Your task to perform on an android device: Go to internet settings Image 0: 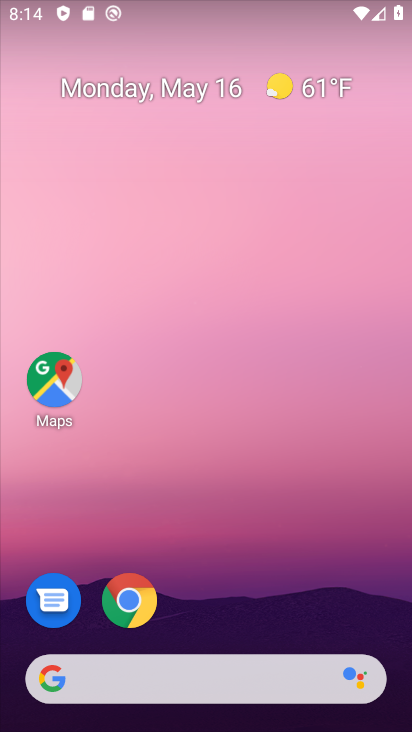
Step 0: drag from (260, 631) to (263, 29)
Your task to perform on an android device: Go to internet settings Image 1: 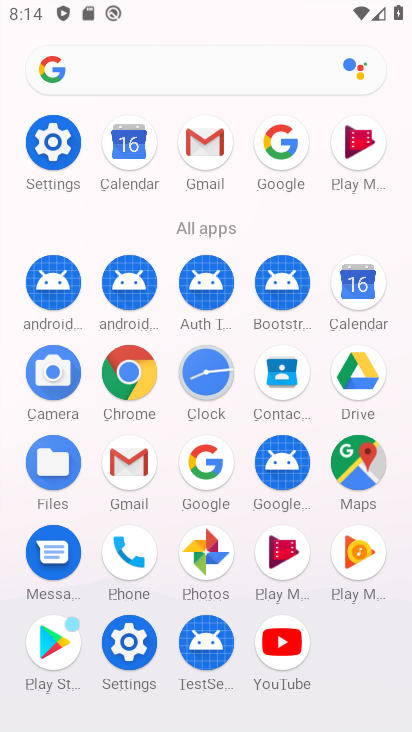
Step 1: click (115, 635)
Your task to perform on an android device: Go to internet settings Image 2: 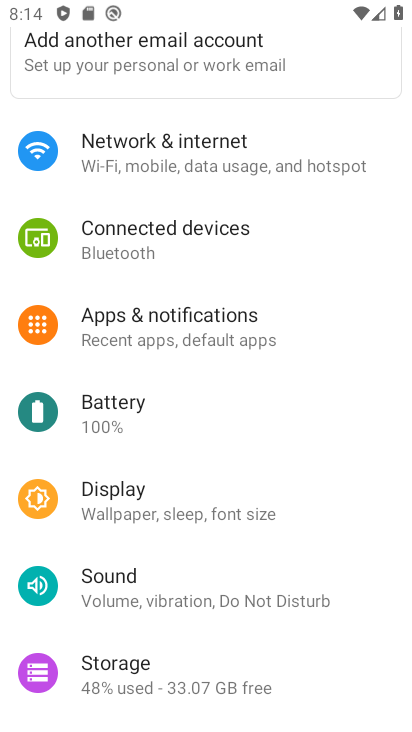
Step 2: click (151, 153)
Your task to perform on an android device: Go to internet settings Image 3: 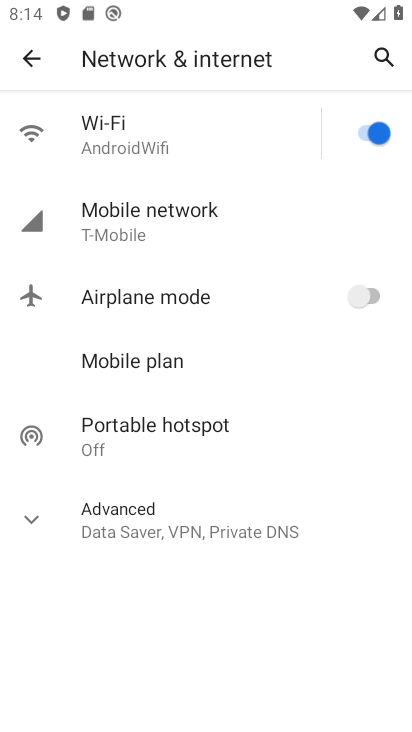
Step 3: click (116, 221)
Your task to perform on an android device: Go to internet settings Image 4: 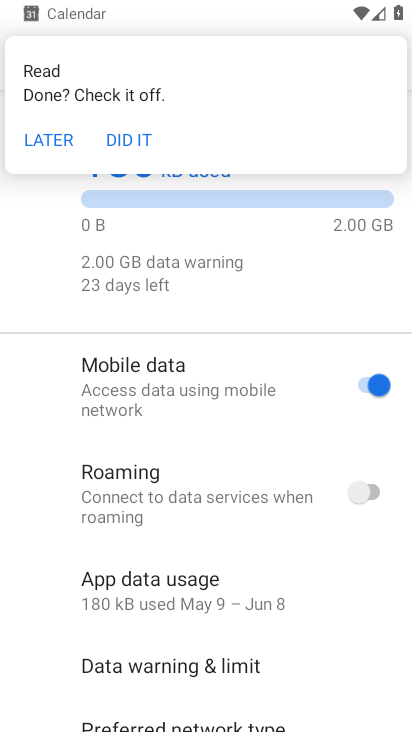
Step 4: task complete